Your task to perform on an android device: Open the Play Movies app and select the watchlist tab. Image 0: 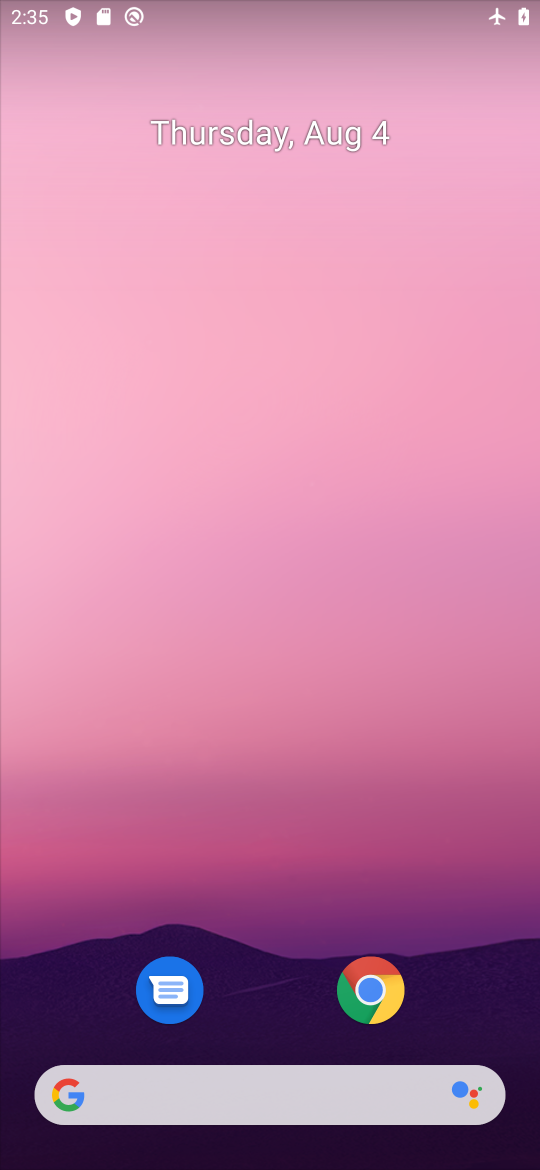
Step 0: drag from (254, 1038) to (202, 207)
Your task to perform on an android device: Open the Play Movies app and select the watchlist tab. Image 1: 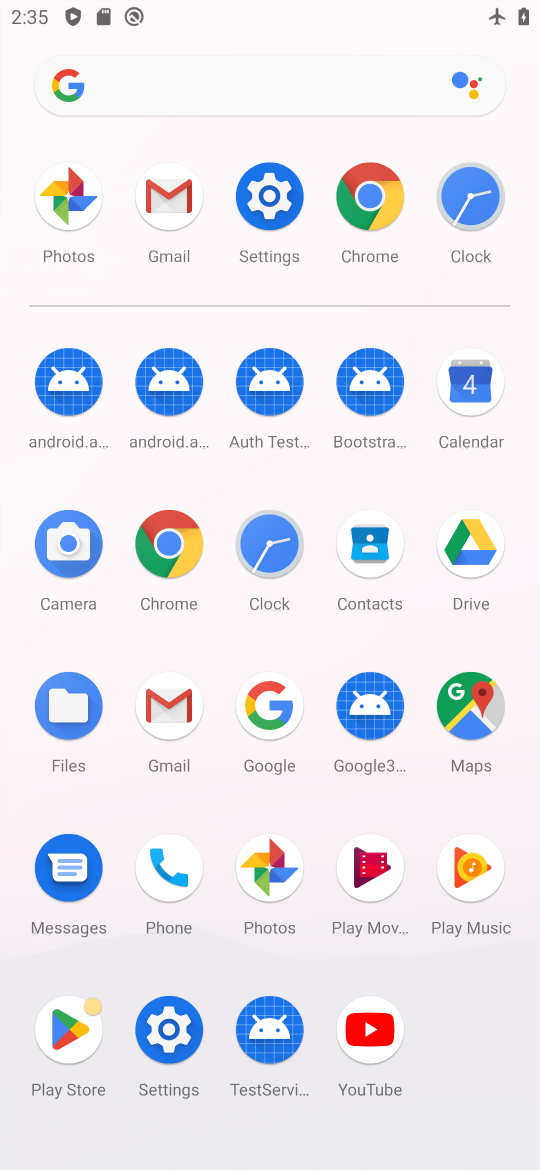
Step 1: click (374, 924)
Your task to perform on an android device: Open the Play Movies app and select the watchlist tab. Image 2: 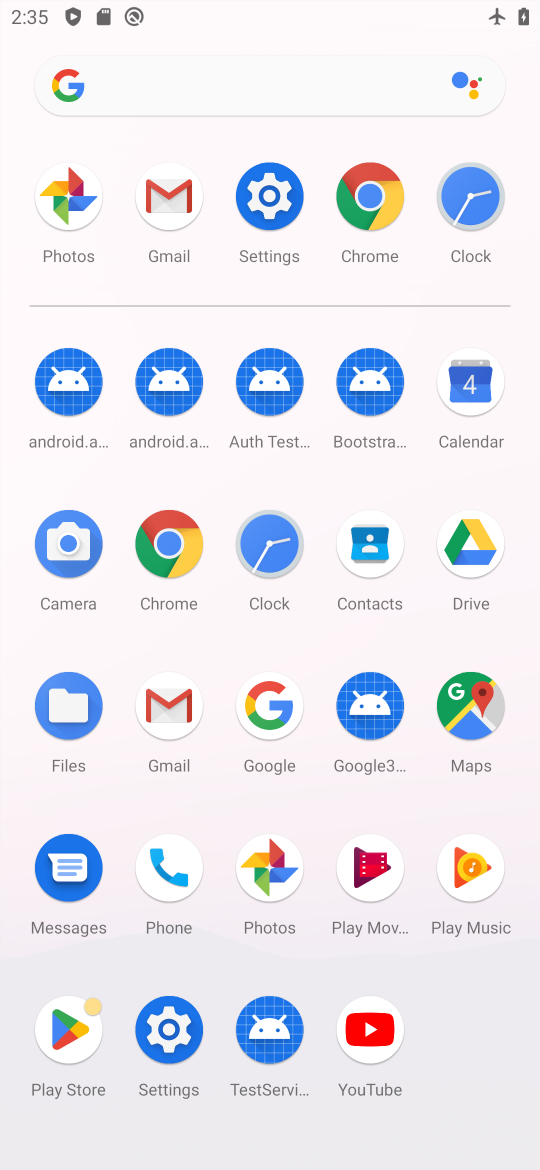
Step 2: click (387, 905)
Your task to perform on an android device: Open the Play Movies app and select the watchlist tab. Image 3: 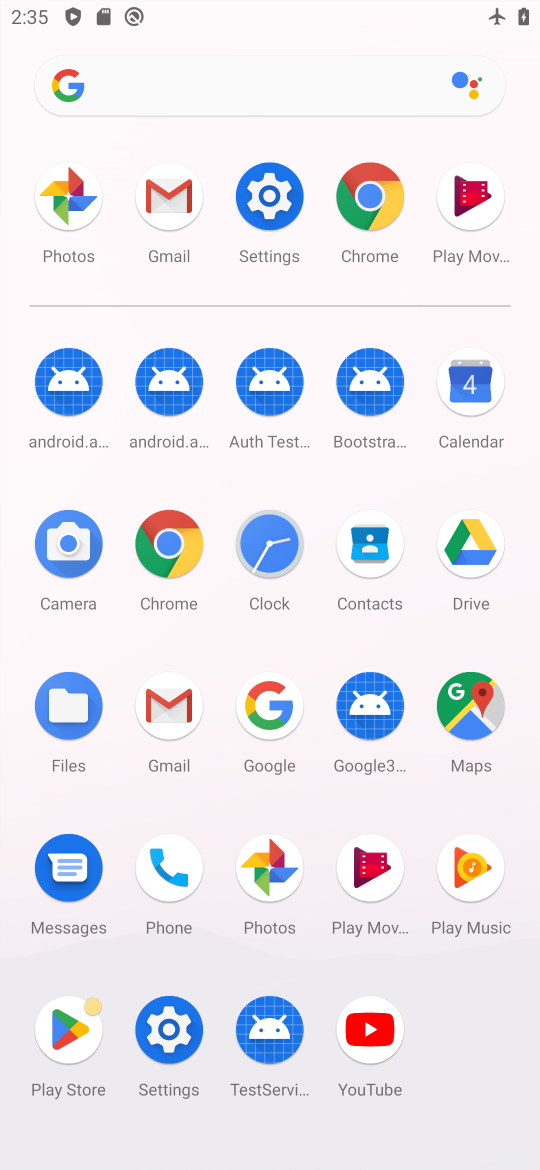
Step 3: click (402, 901)
Your task to perform on an android device: Open the Play Movies app and select the watchlist tab. Image 4: 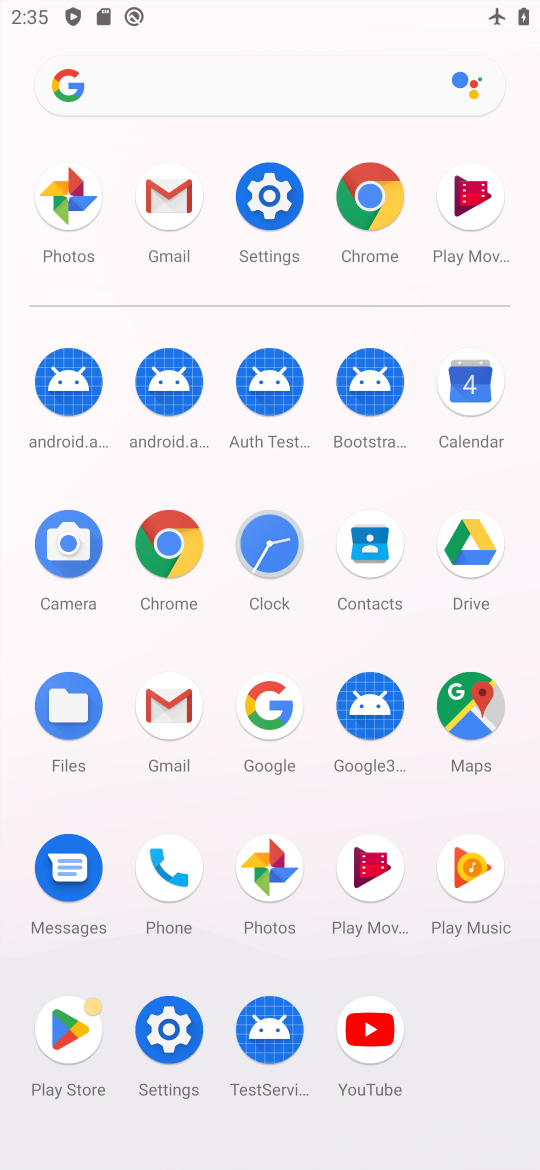
Step 4: task complete